Your task to perform on an android device: Show me productivity apps on the Play Store Image 0: 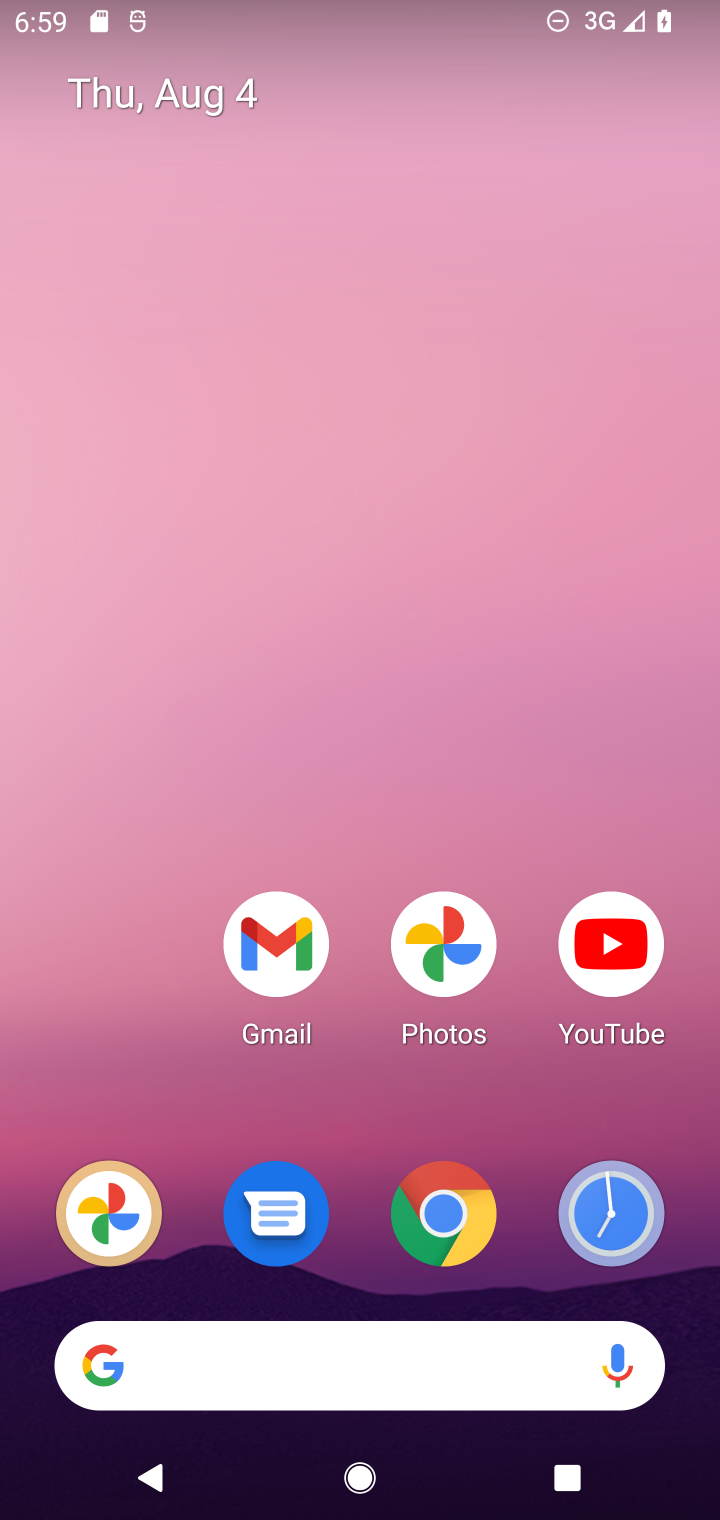
Step 0: press home button
Your task to perform on an android device: Show me productivity apps on the Play Store Image 1: 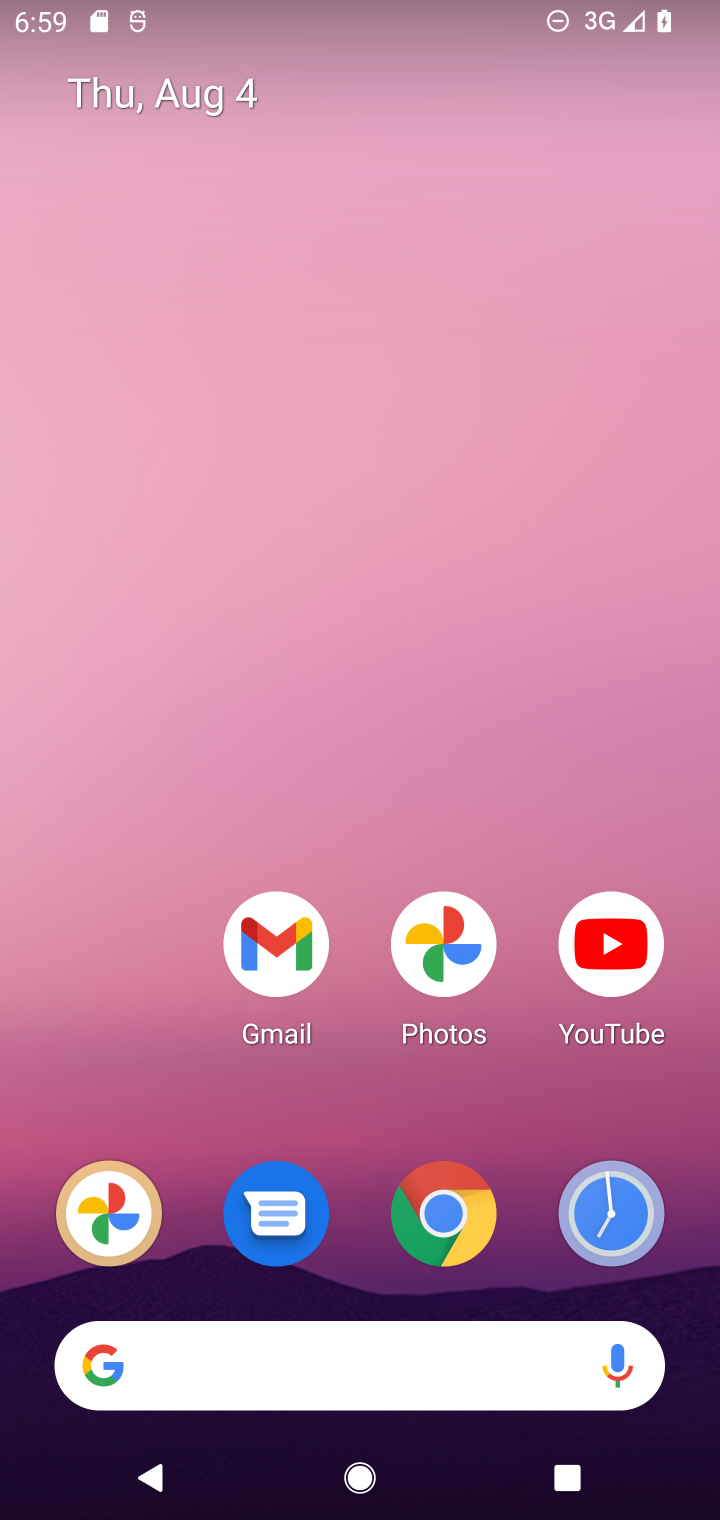
Step 1: drag from (169, 1153) to (159, 330)
Your task to perform on an android device: Show me productivity apps on the Play Store Image 2: 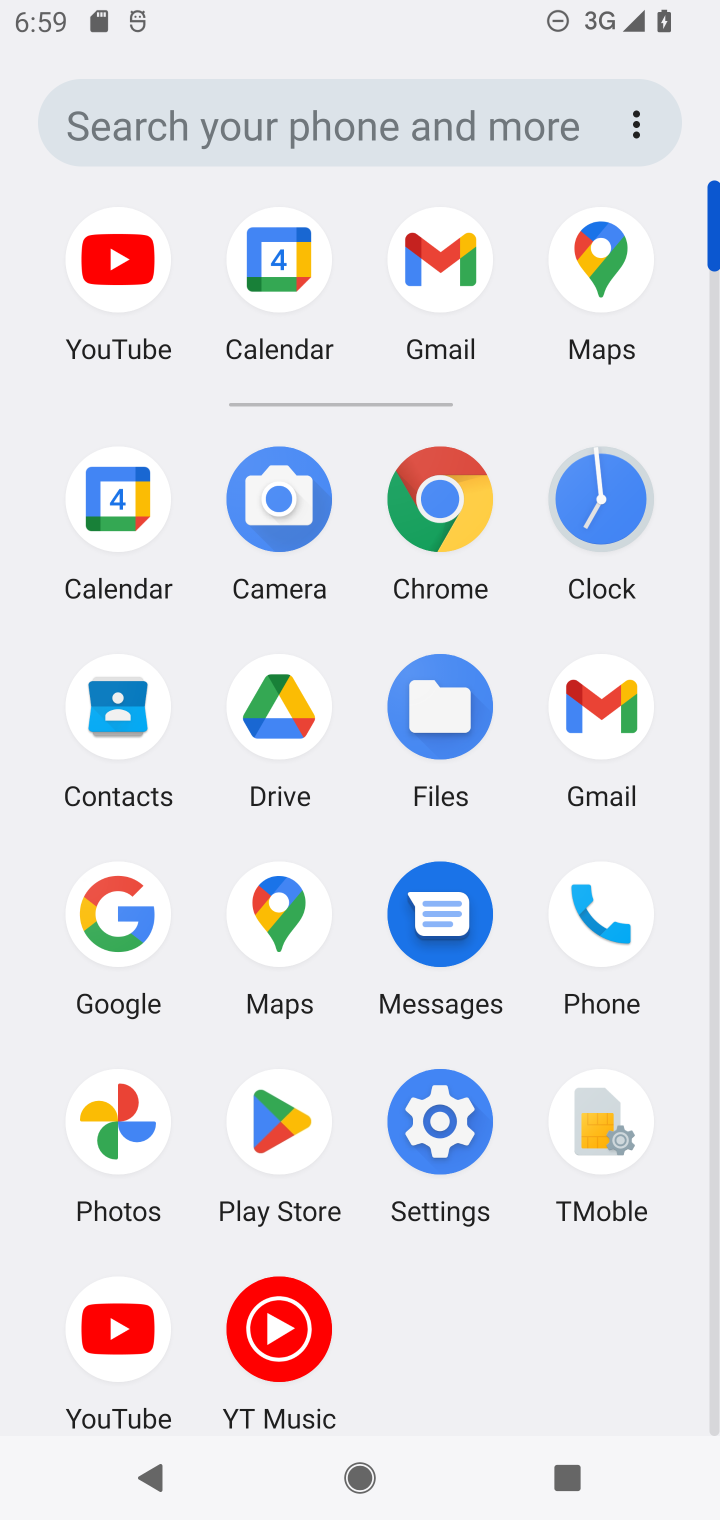
Step 2: click (291, 1116)
Your task to perform on an android device: Show me productivity apps on the Play Store Image 3: 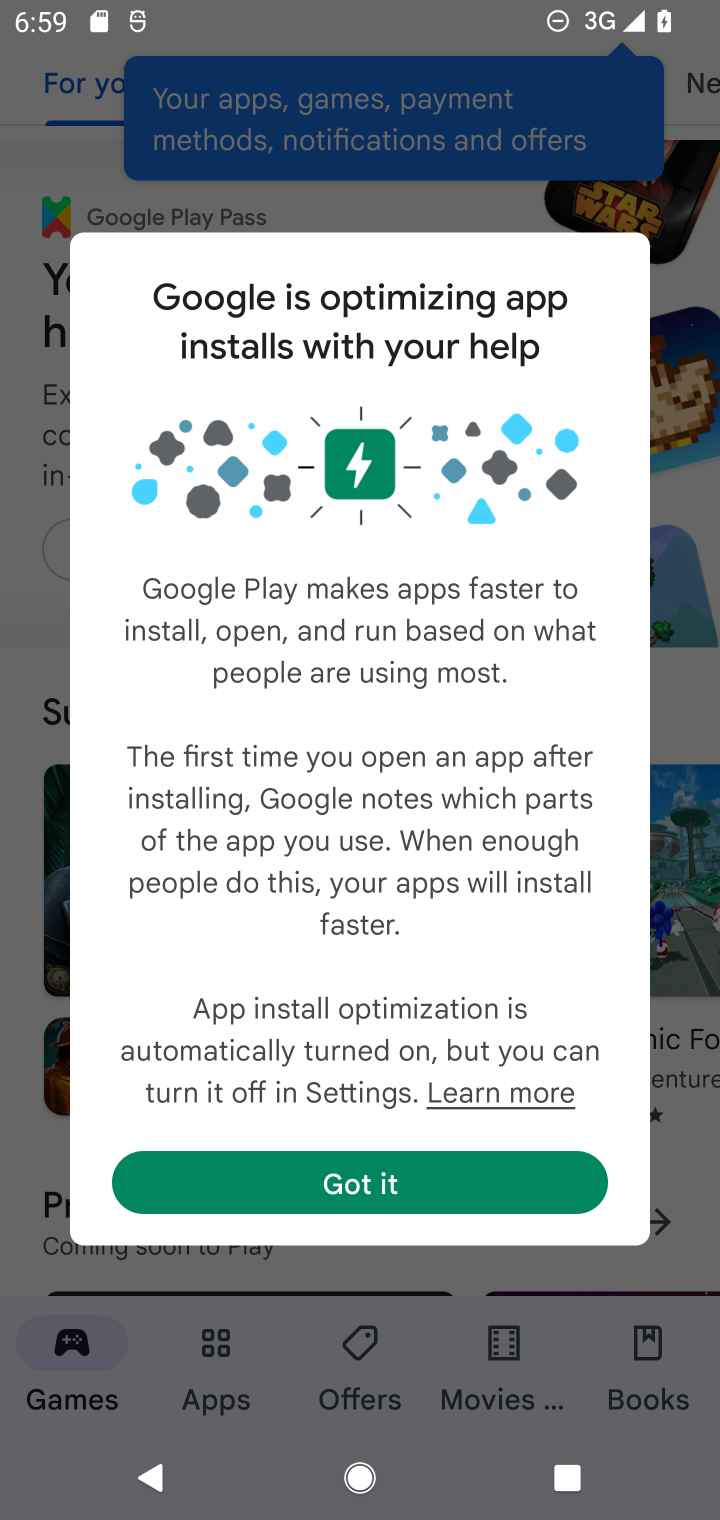
Step 3: click (423, 1170)
Your task to perform on an android device: Show me productivity apps on the Play Store Image 4: 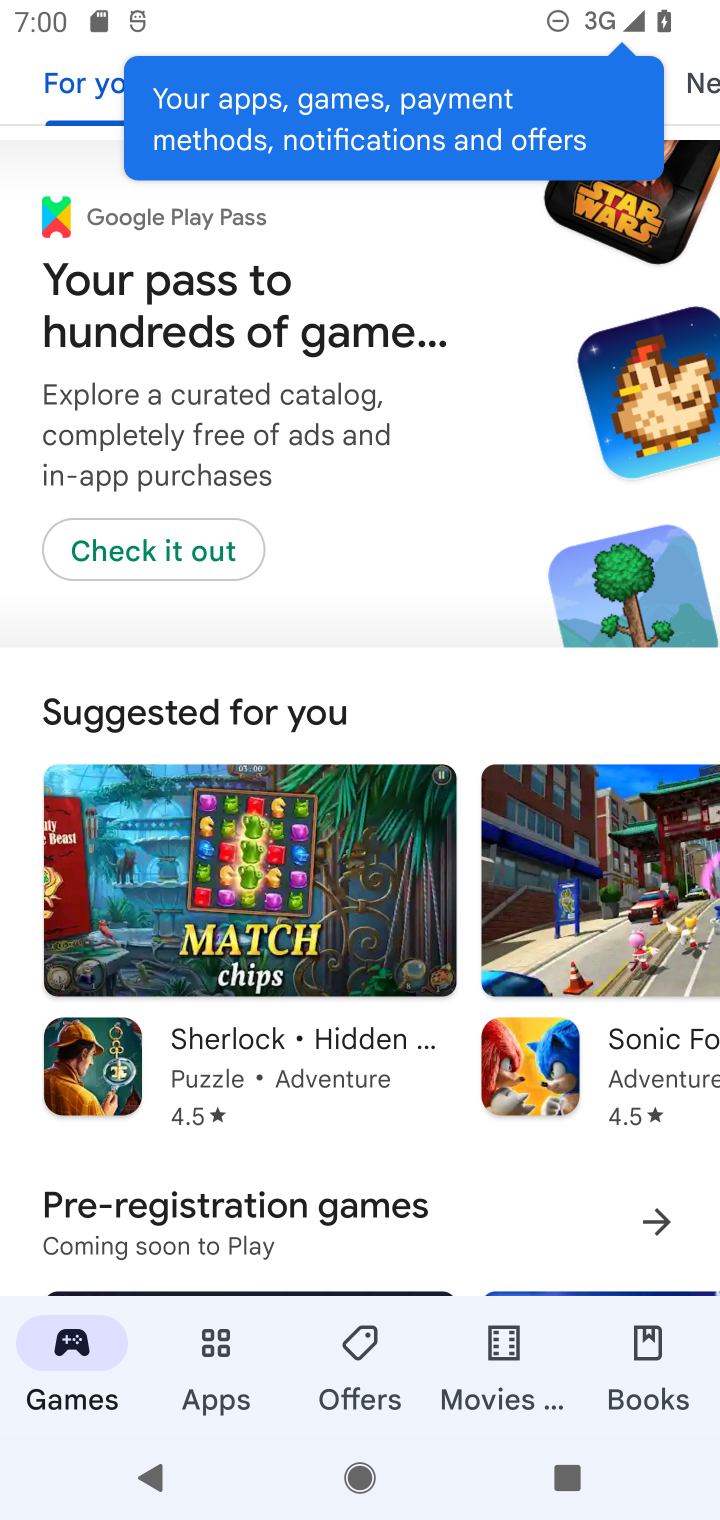
Step 4: click (203, 1374)
Your task to perform on an android device: Show me productivity apps on the Play Store Image 5: 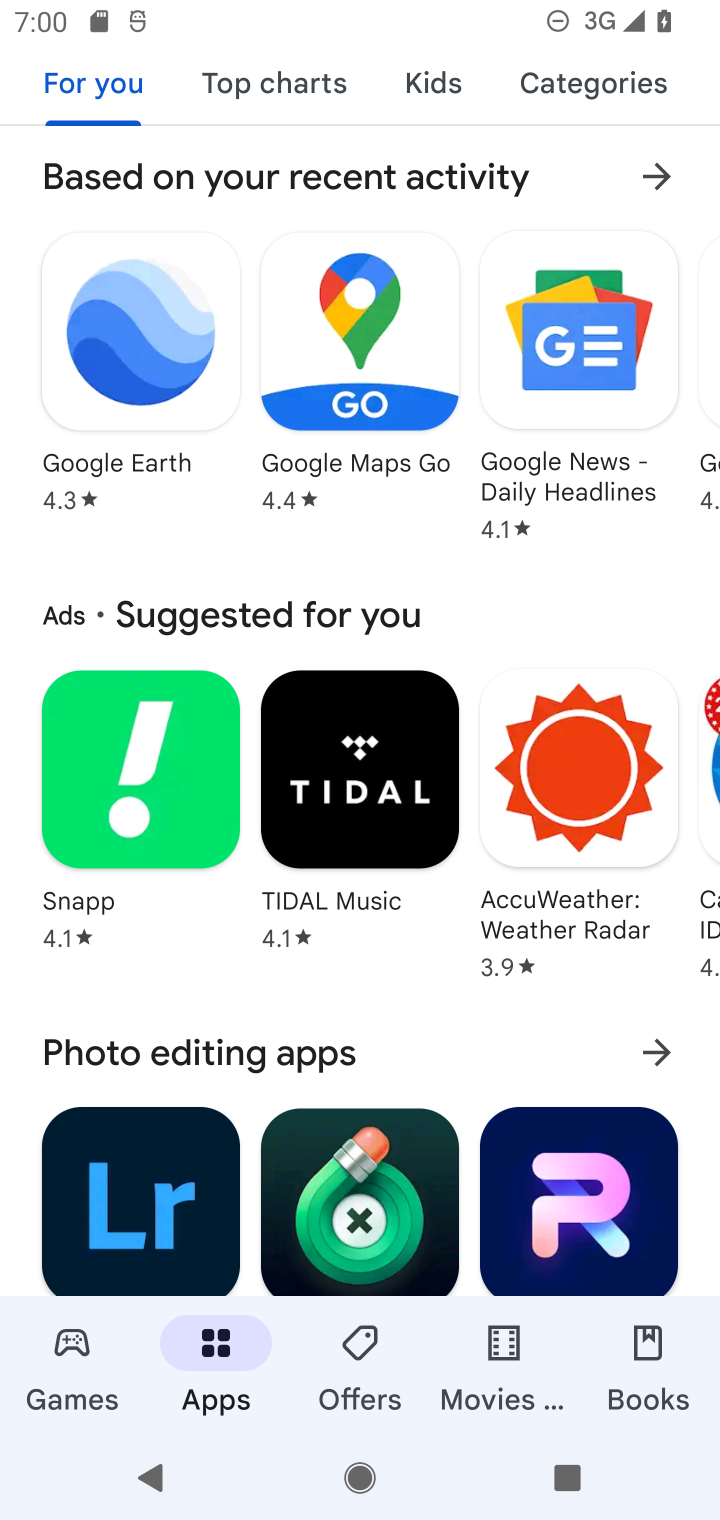
Step 5: task complete